Your task to perform on an android device: Search for 3d printed chess sets on Etsy. Image 0: 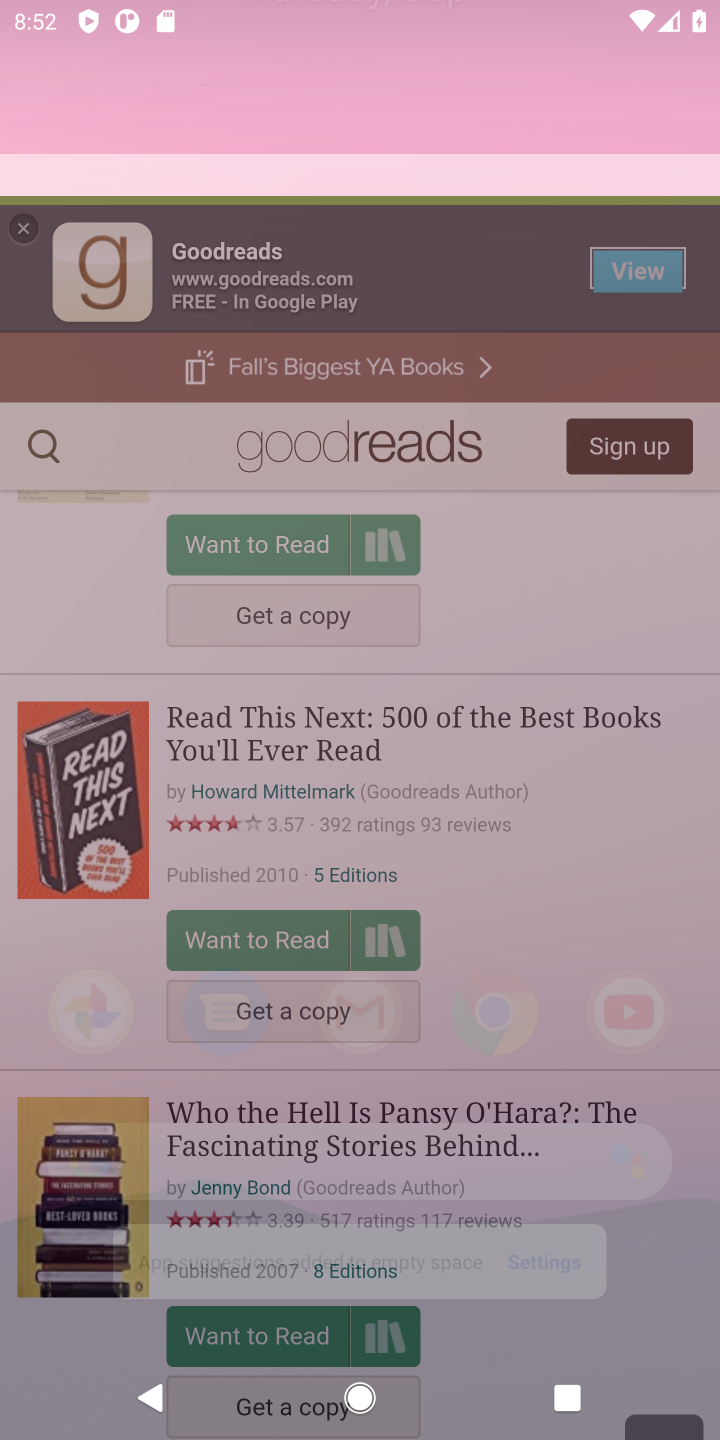
Step 0: press home button
Your task to perform on an android device: Search for 3d printed chess sets on Etsy. Image 1: 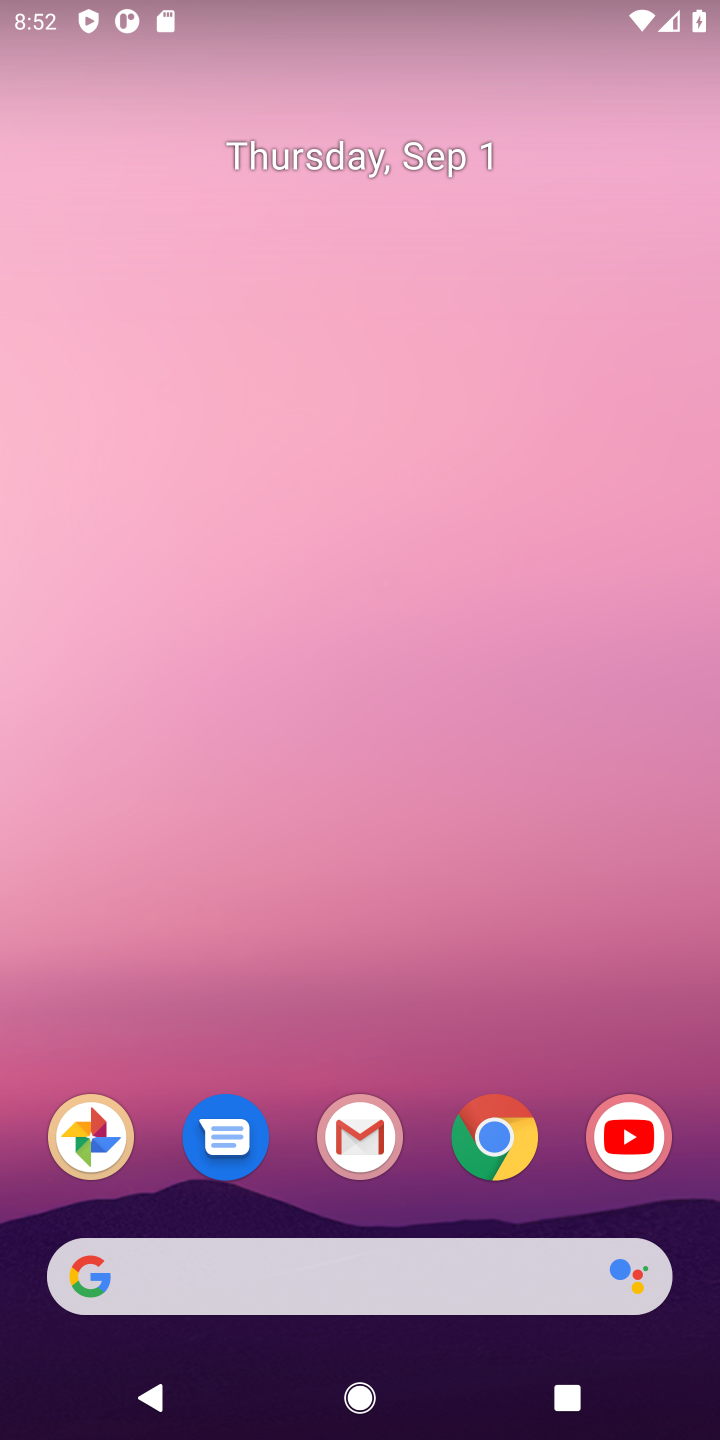
Step 1: press home button
Your task to perform on an android device: Search for 3d printed chess sets on Etsy. Image 2: 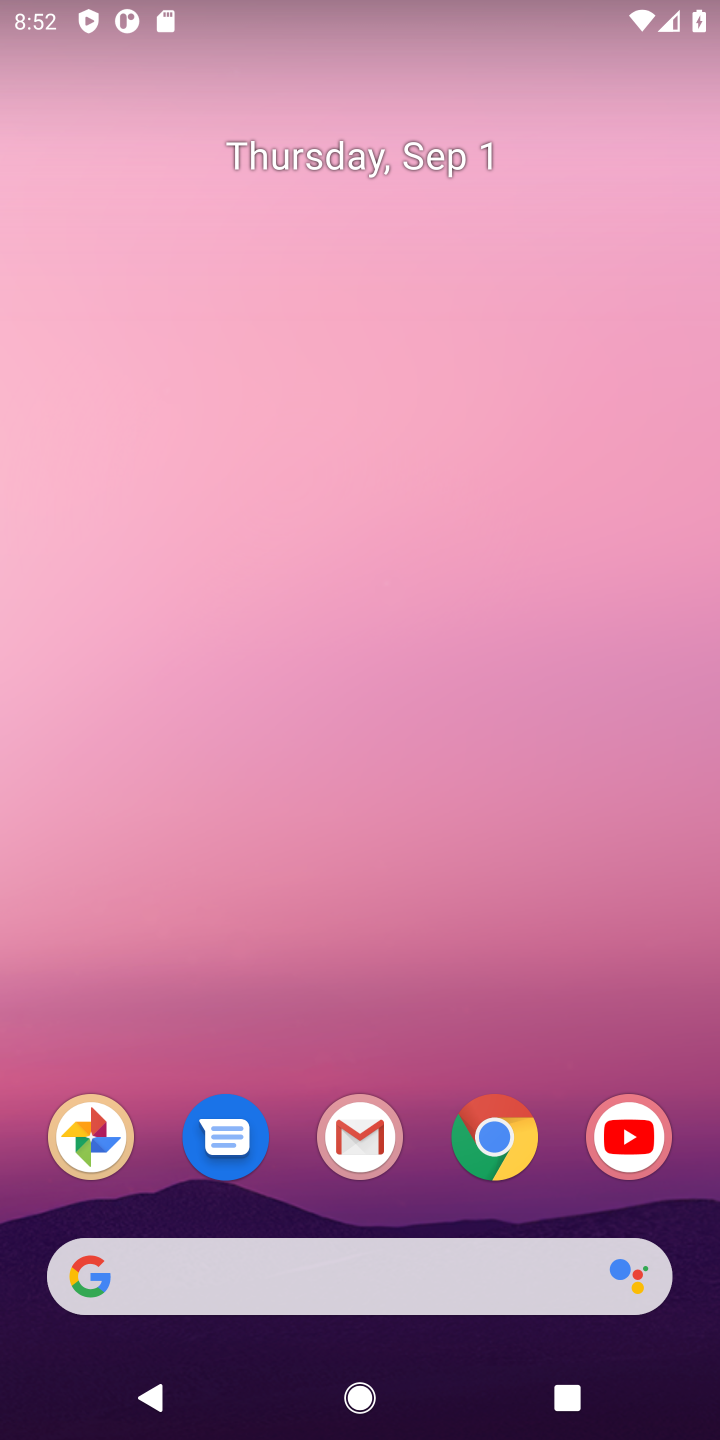
Step 2: click (493, 1127)
Your task to perform on an android device: Search for 3d printed chess sets on Etsy. Image 3: 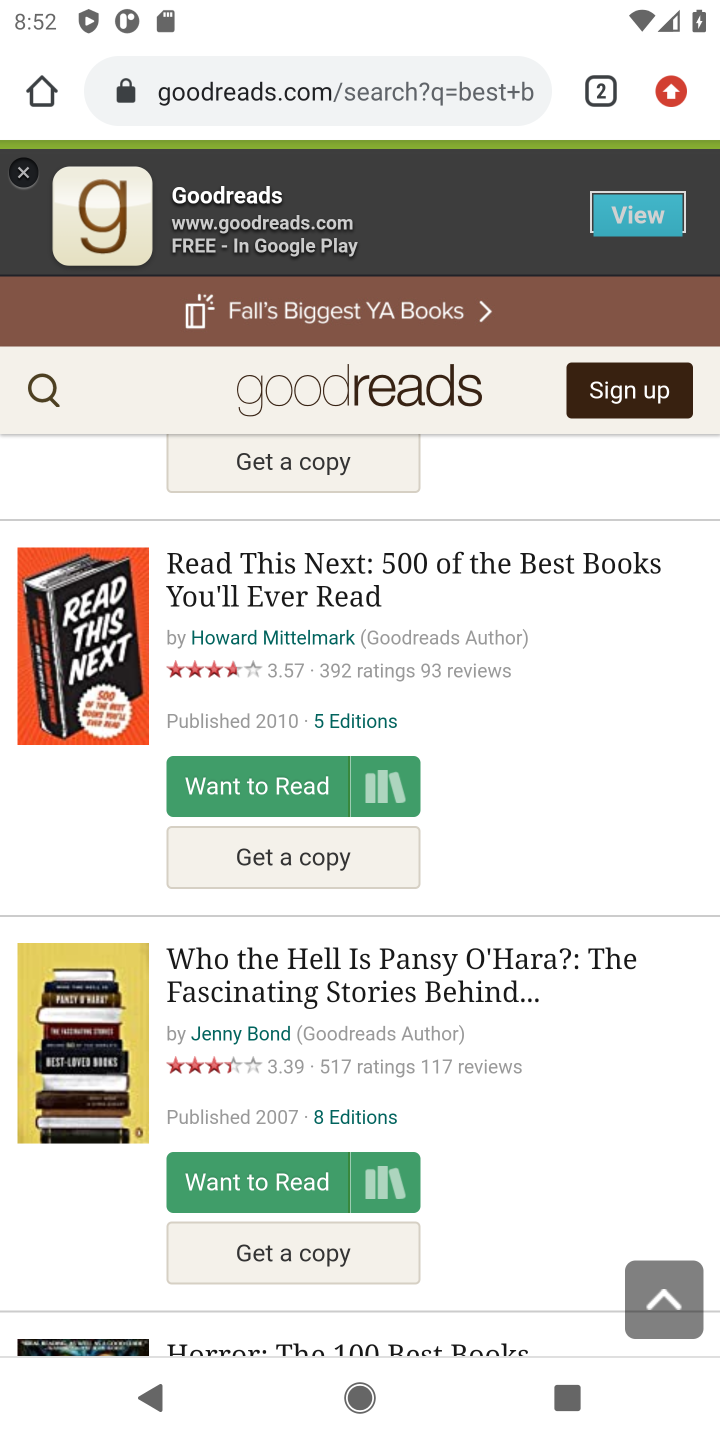
Step 3: click (383, 86)
Your task to perform on an android device: Search for 3d printed chess sets on Etsy. Image 4: 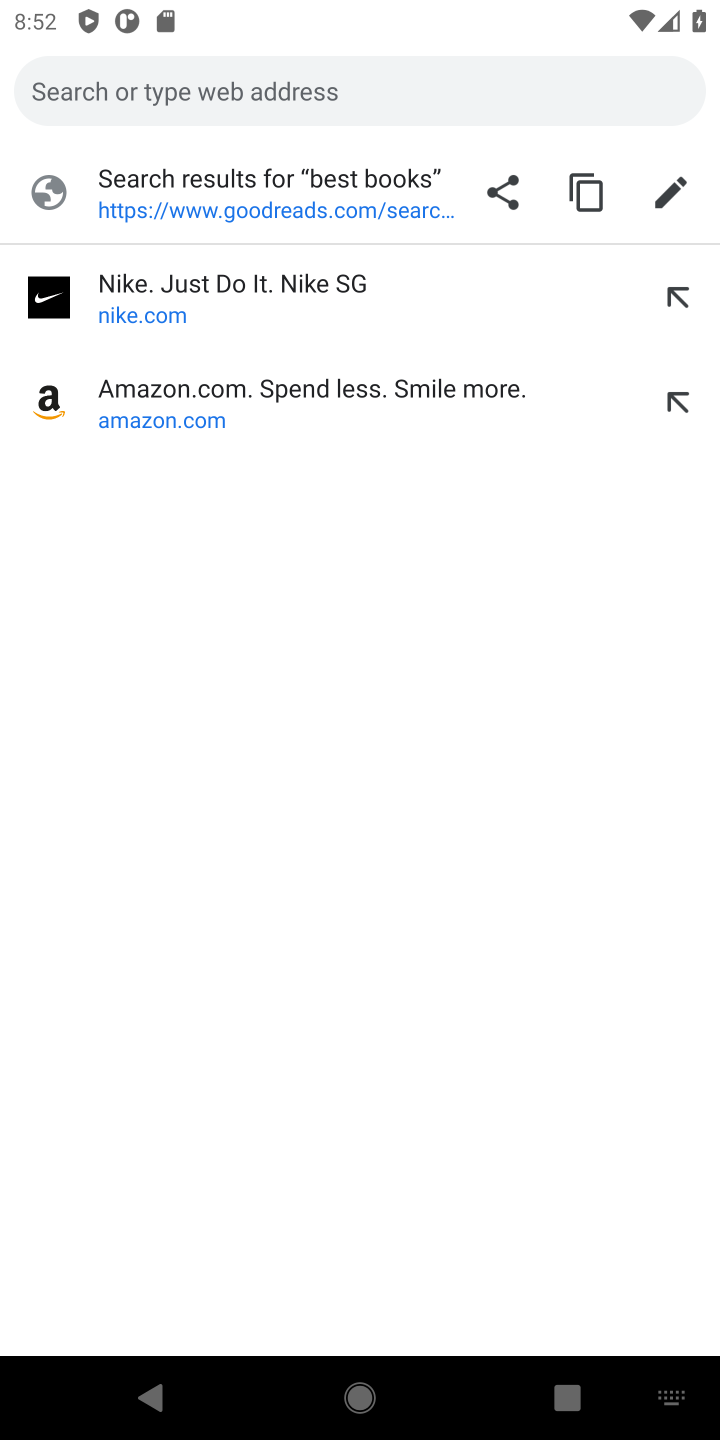
Step 4: type "Etsy"
Your task to perform on an android device: Search for 3d printed chess sets on Etsy. Image 5: 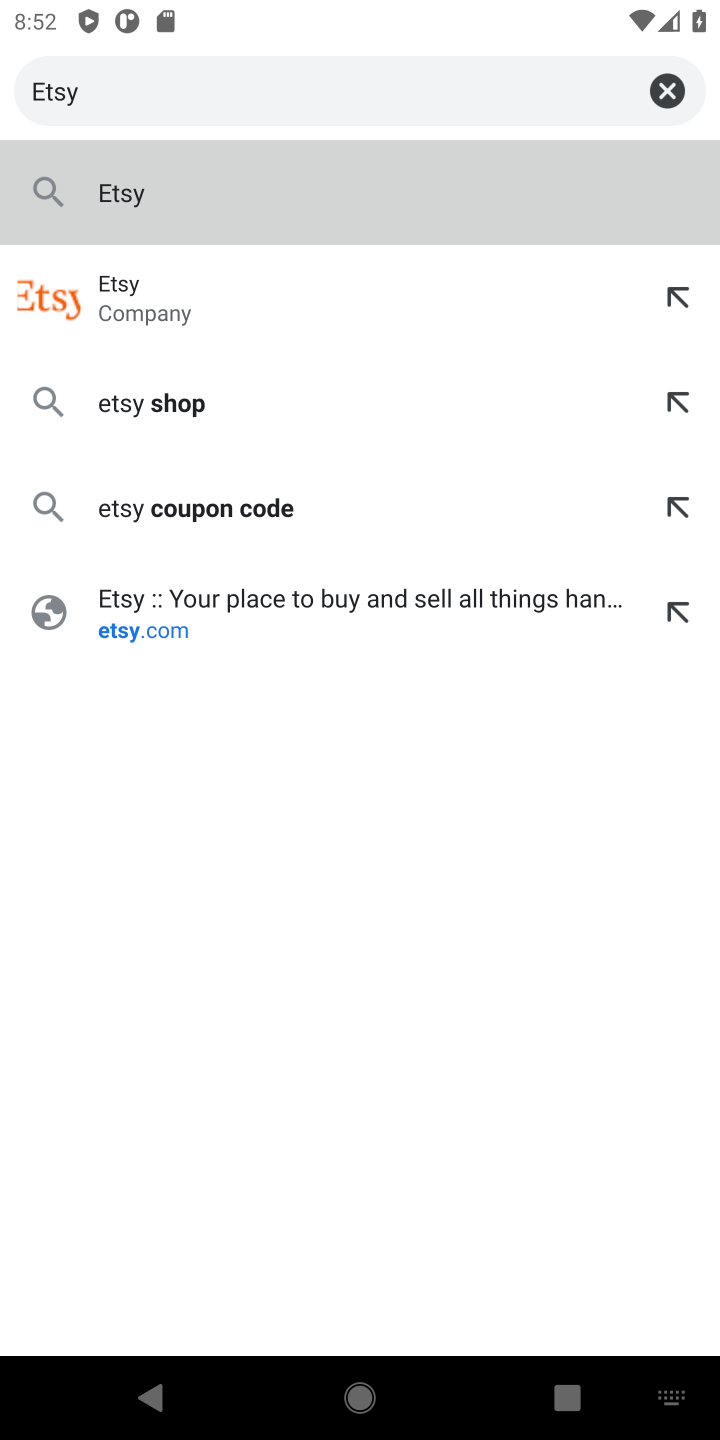
Step 5: click (156, 180)
Your task to perform on an android device: Search for 3d printed chess sets on Etsy. Image 6: 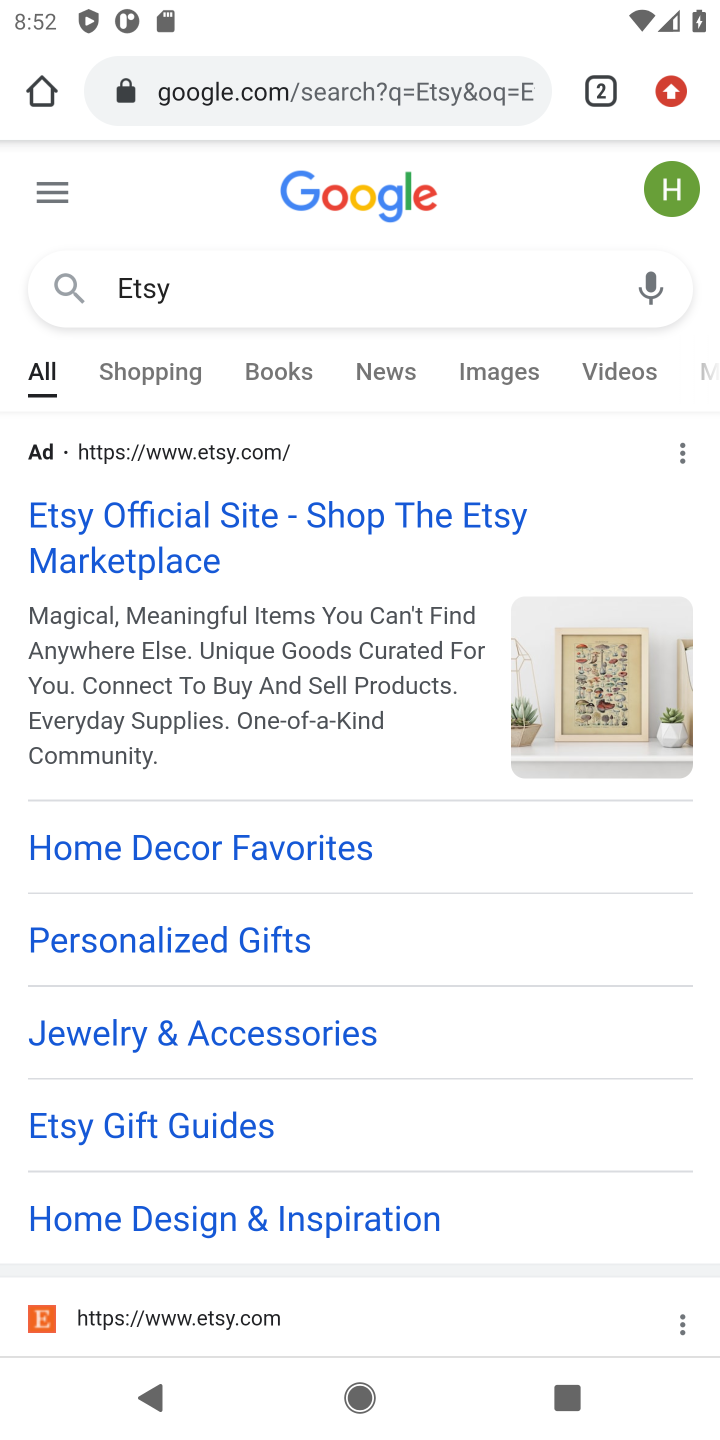
Step 6: click (178, 526)
Your task to perform on an android device: Search for 3d printed chess sets on Etsy. Image 7: 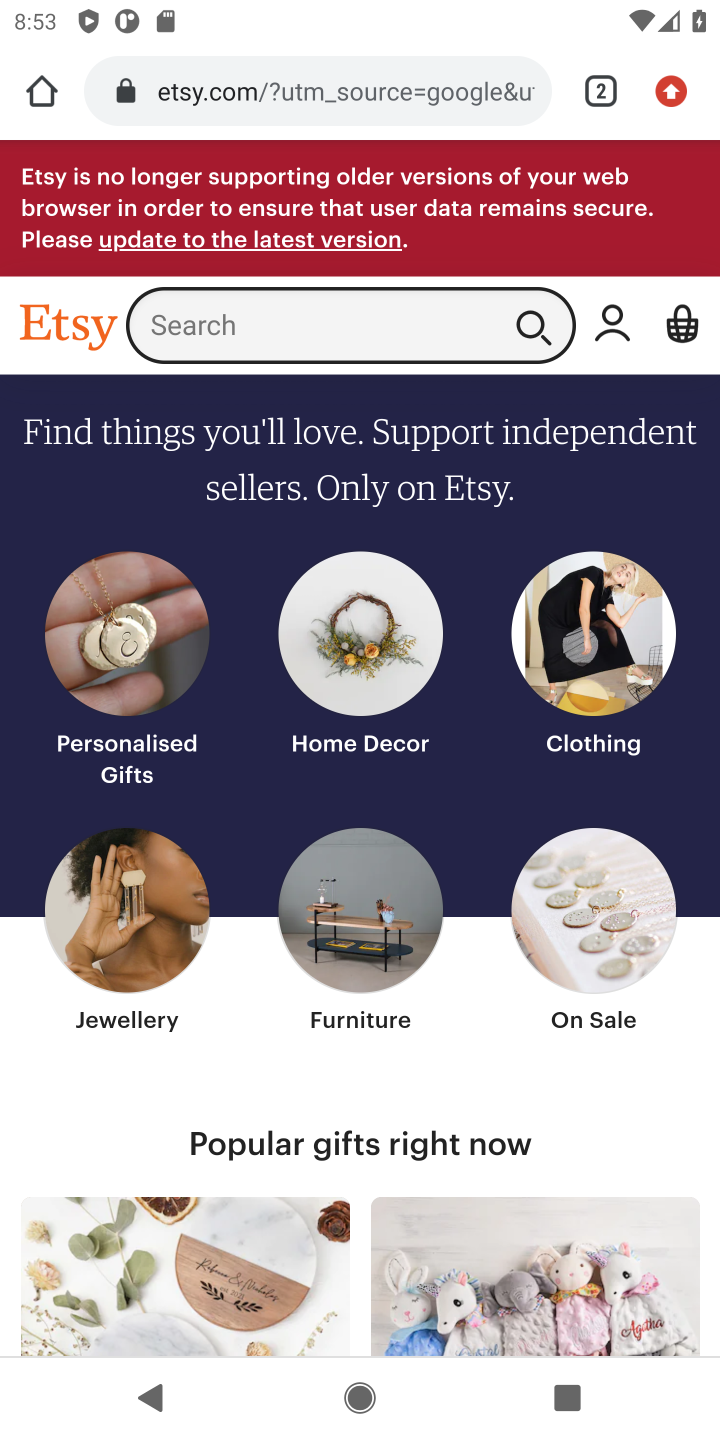
Step 7: click (239, 320)
Your task to perform on an android device: Search for 3d printed chess sets on Etsy. Image 8: 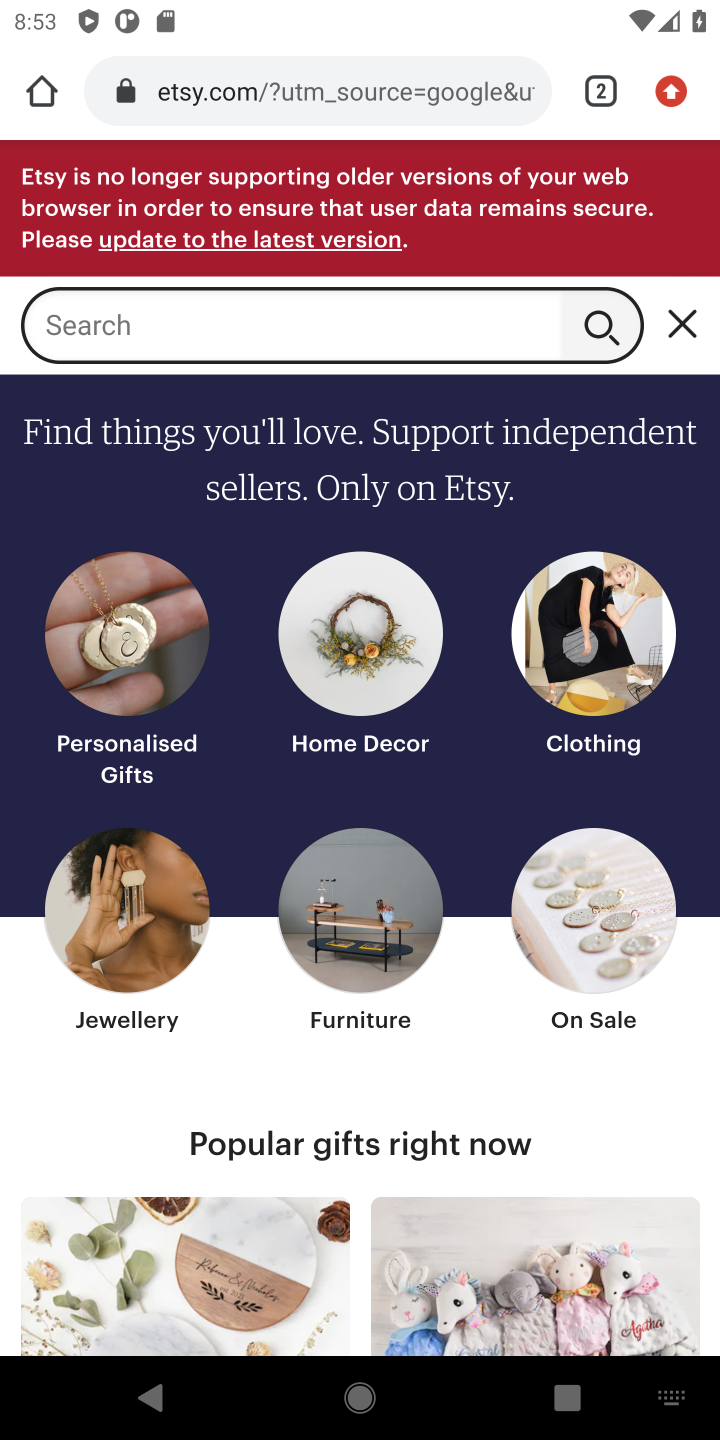
Step 8: type "3d printed chess sets"
Your task to perform on an android device: Search for 3d printed chess sets on Etsy. Image 9: 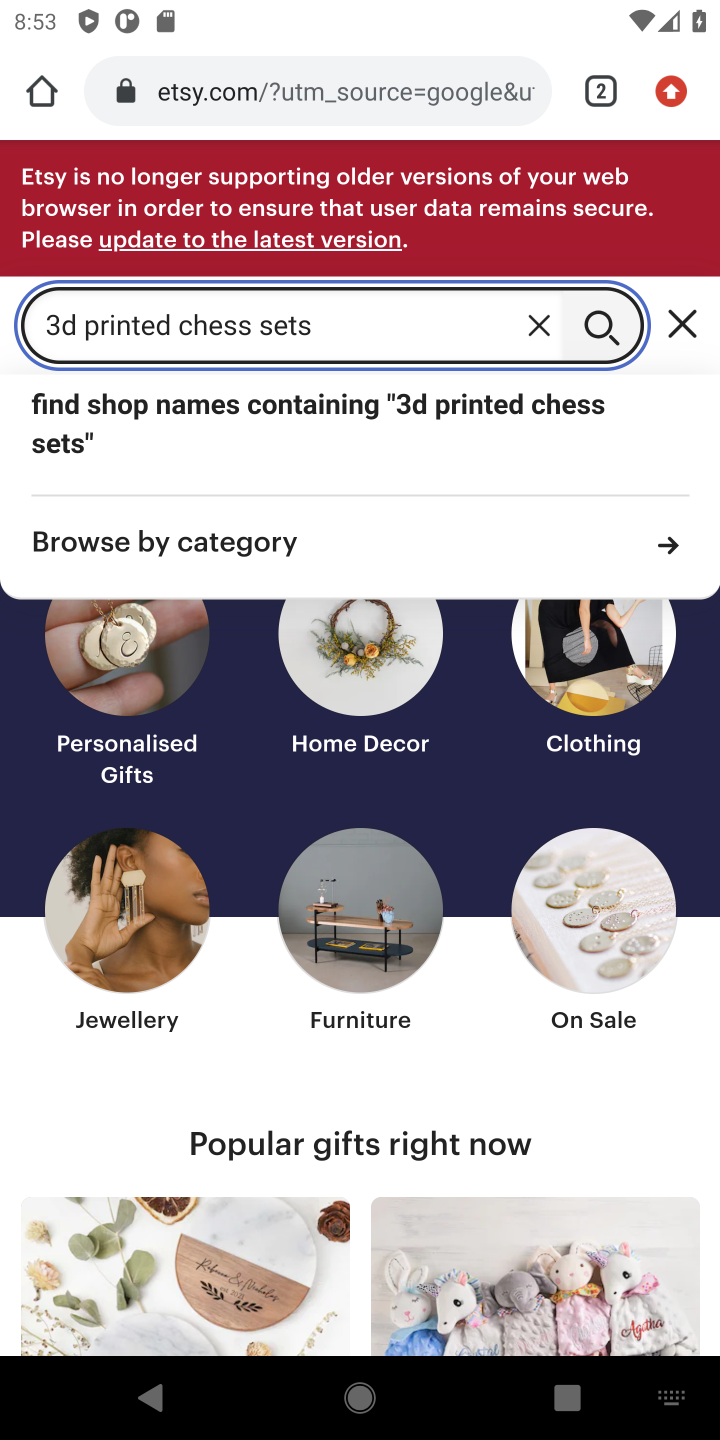
Step 9: click (613, 330)
Your task to perform on an android device: Search for 3d printed chess sets on Etsy. Image 10: 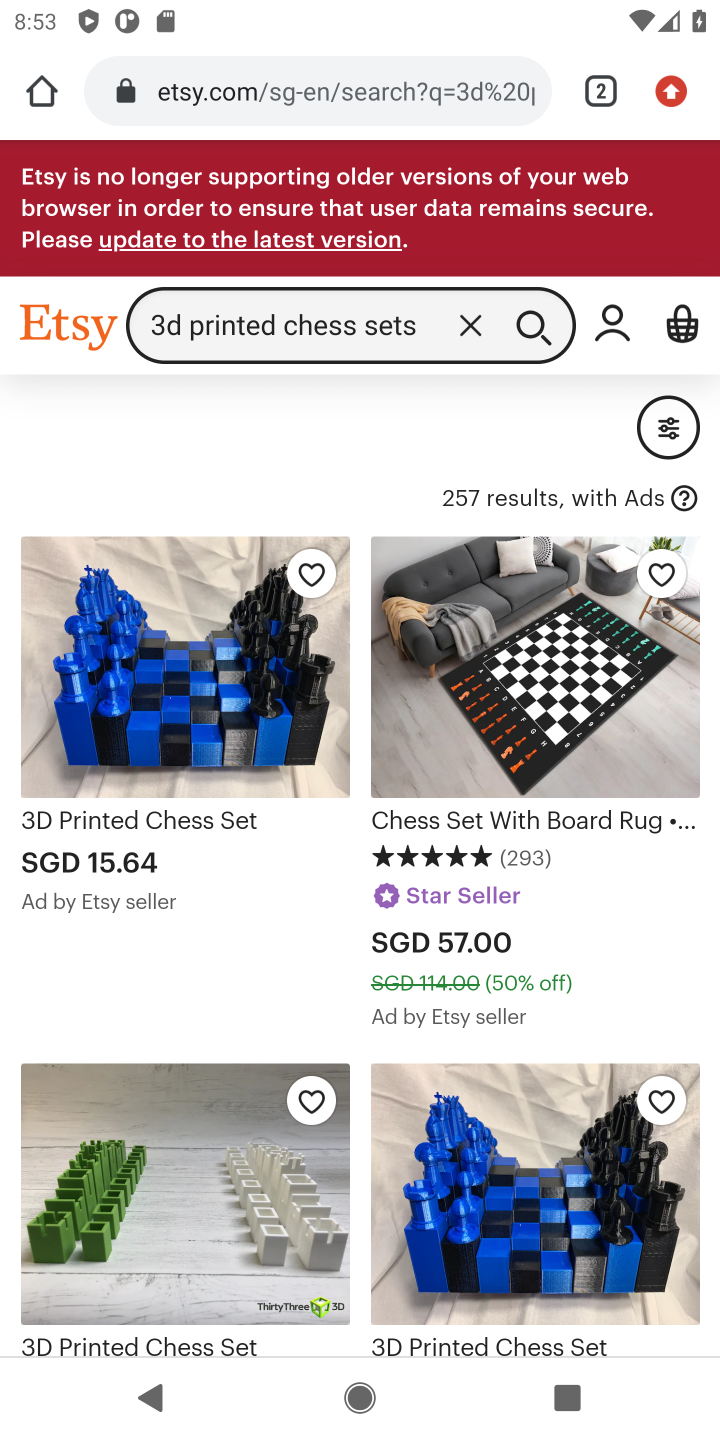
Step 10: drag from (359, 1035) to (439, 516)
Your task to perform on an android device: Search for 3d printed chess sets on Etsy. Image 11: 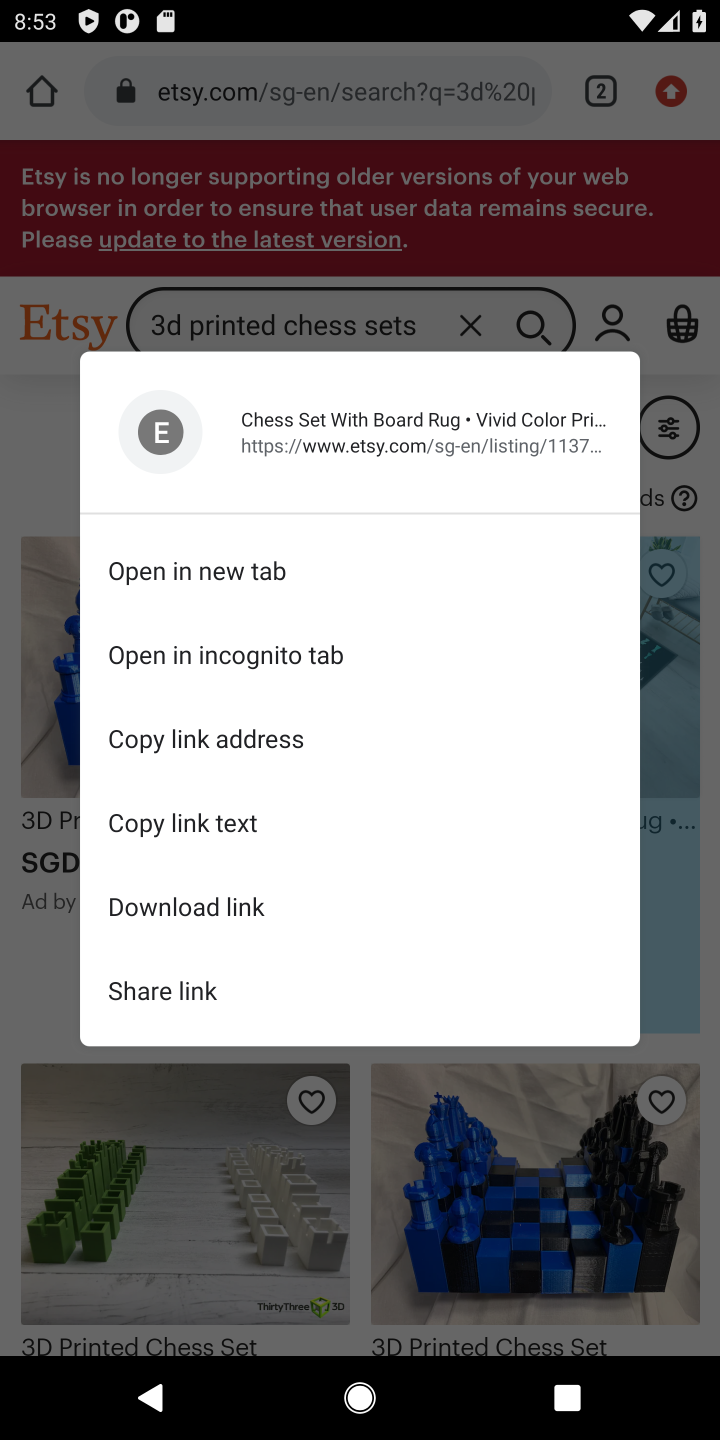
Step 11: click (180, 1214)
Your task to perform on an android device: Search for 3d printed chess sets on Etsy. Image 12: 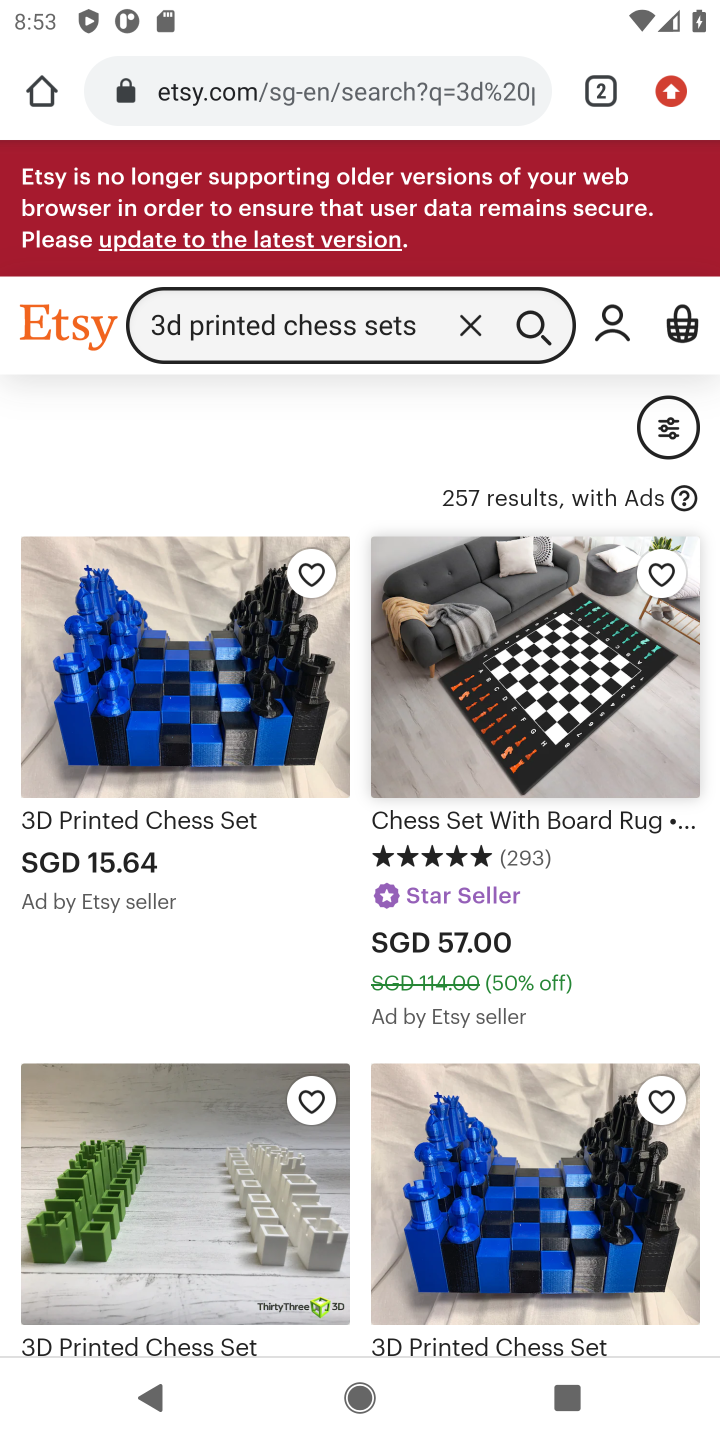
Step 12: drag from (370, 1267) to (415, 470)
Your task to perform on an android device: Search for 3d printed chess sets on Etsy. Image 13: 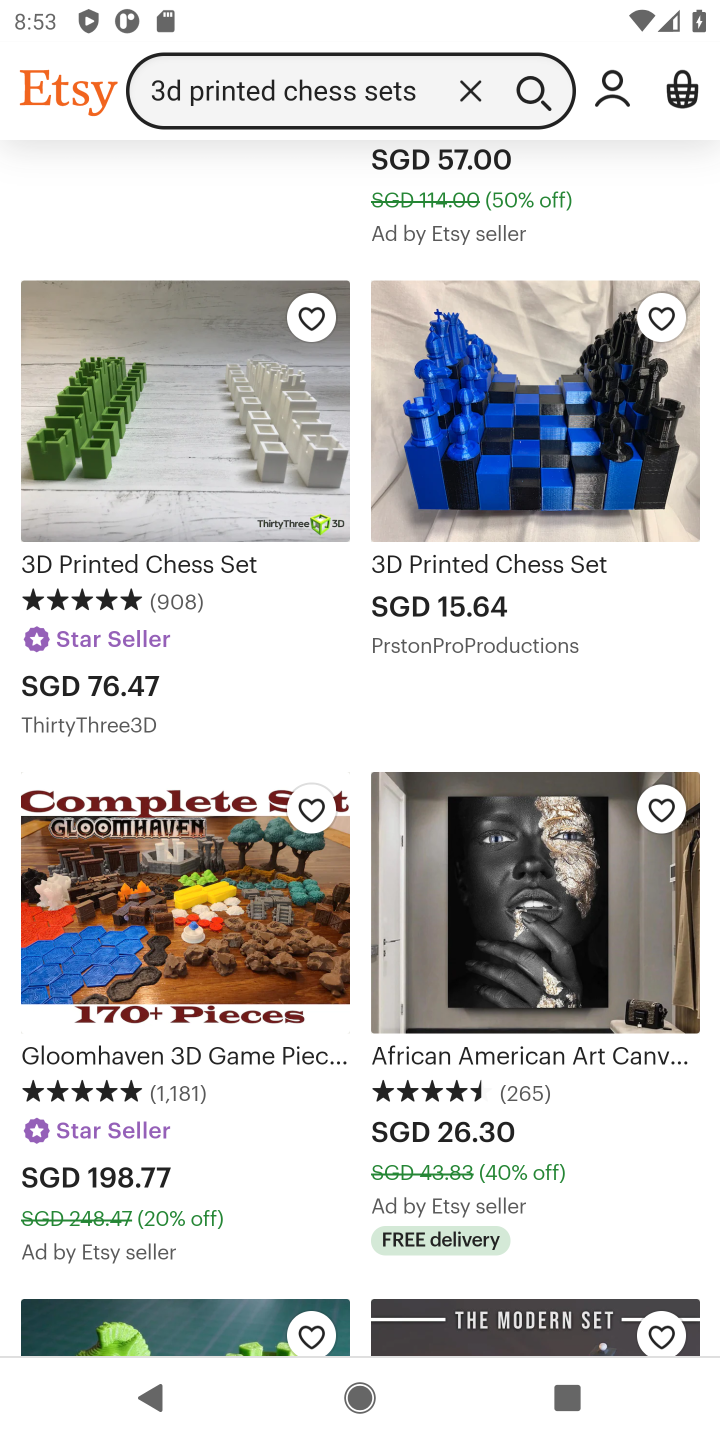
Step 13: drag from (384, 1191) to (415, 176)
Your task to perform on an android device: Search for 3d printed chess sets on Etsy. Image 14: 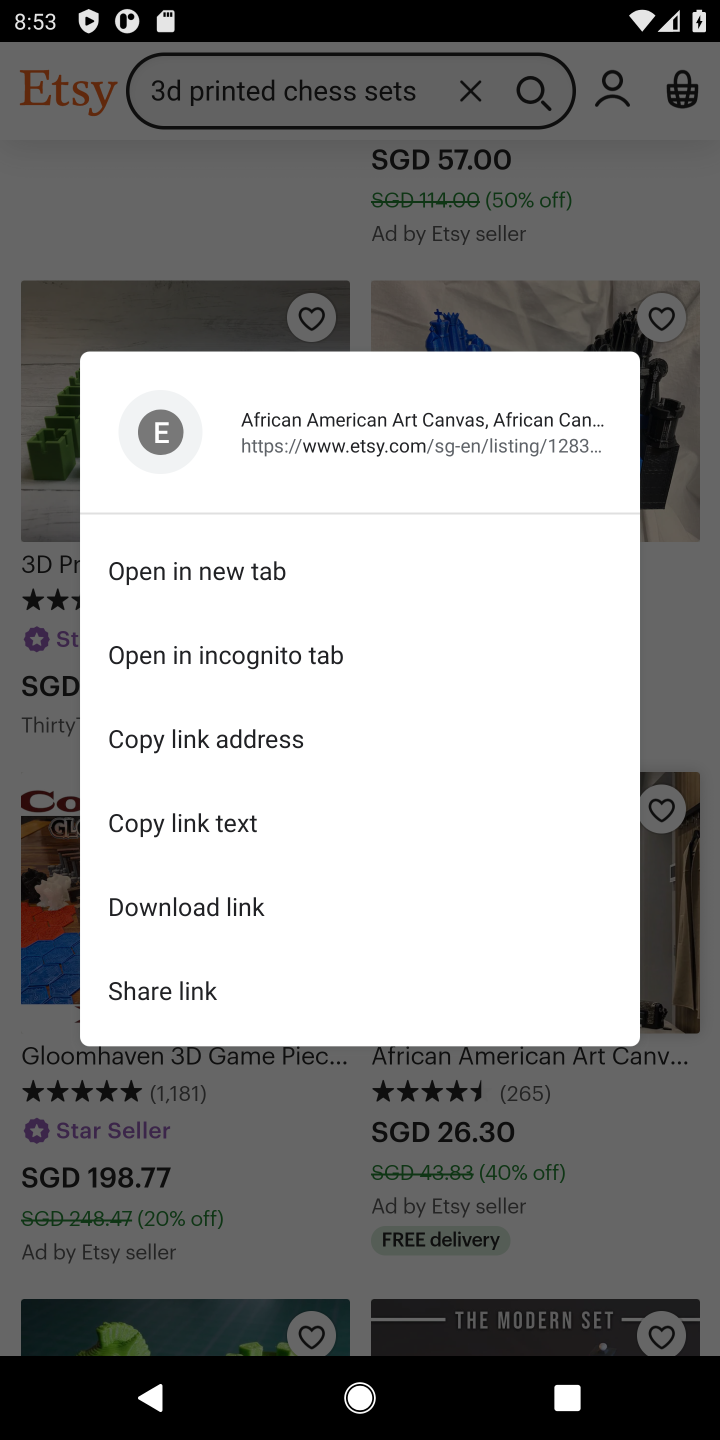
Step 14: click (167, 1118)
Your task to perform on an android device: Search for 3d printed chess sets on Etsy. Image 15: 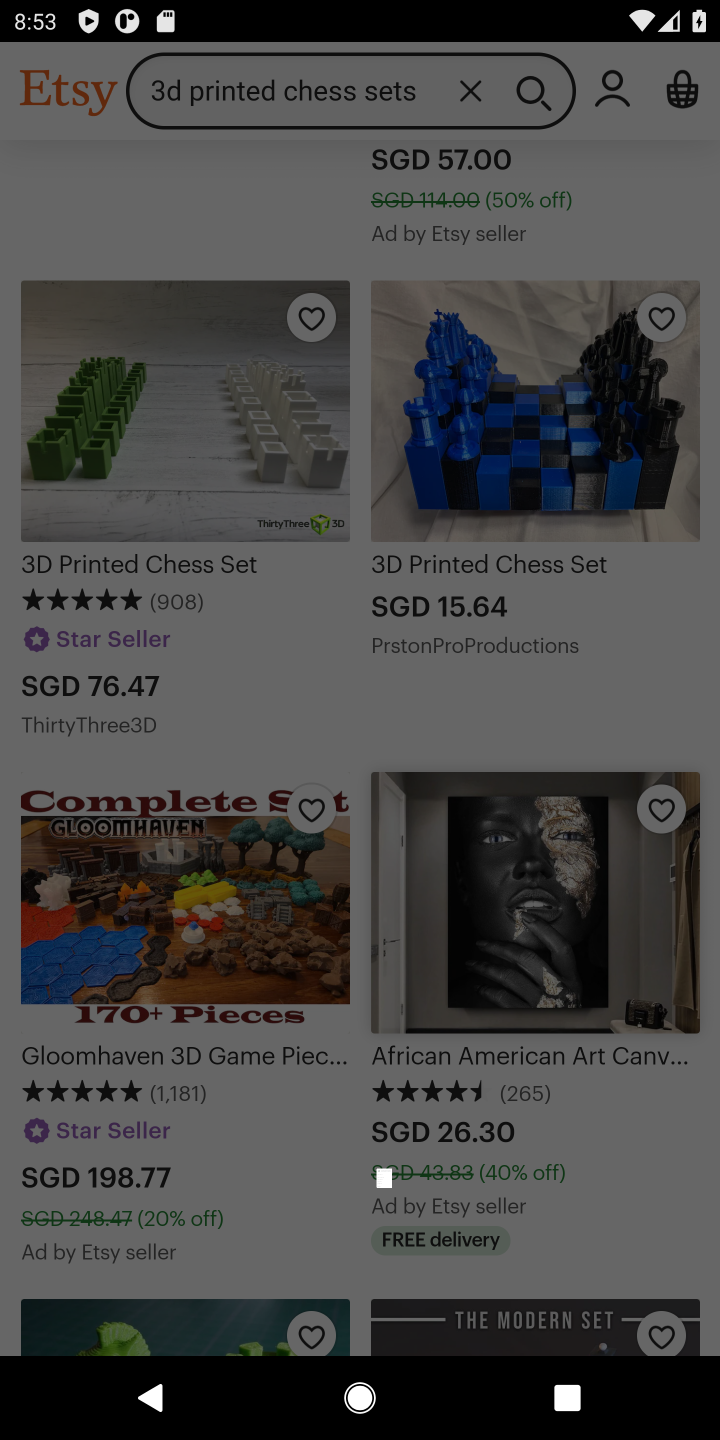
Step 15: task complete